Your task to perform on an android device: Go to Maps Image 0: 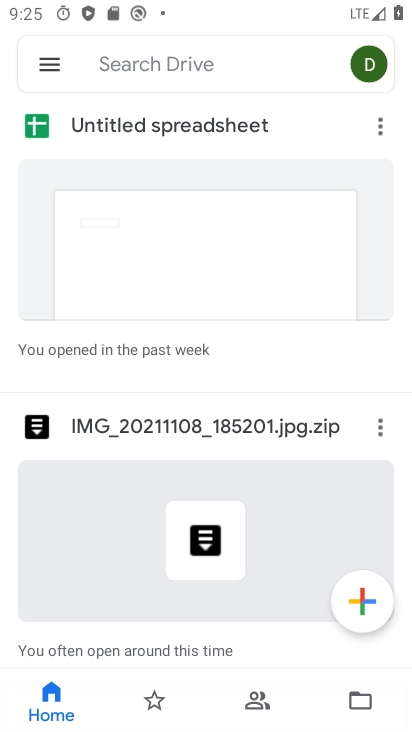
Step 0: press home button
Your task to perform on an android device: Go to Maps Image 1: 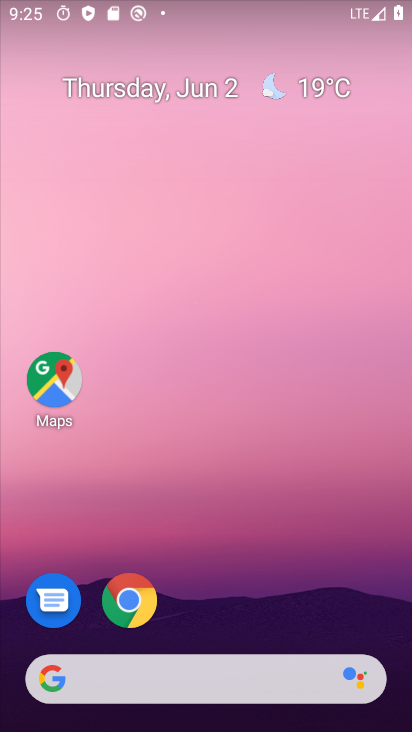
Step 1: click (231, 622)
Your task to perform on an android device: Go to Maps Image 2: 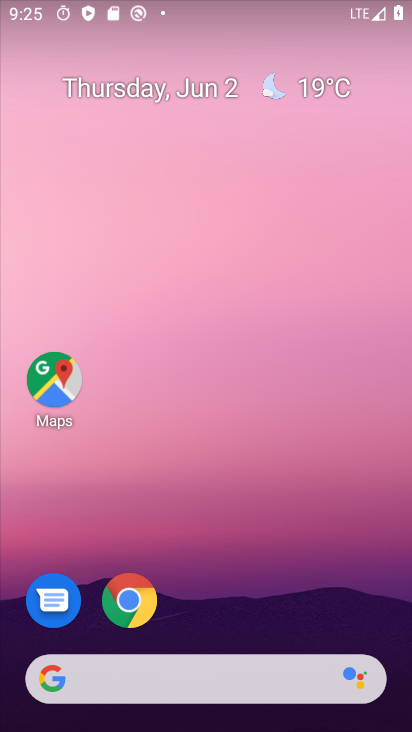
Step 2: click (58, 361)
Your task to perform on an android device: Go to Maps Image 3: 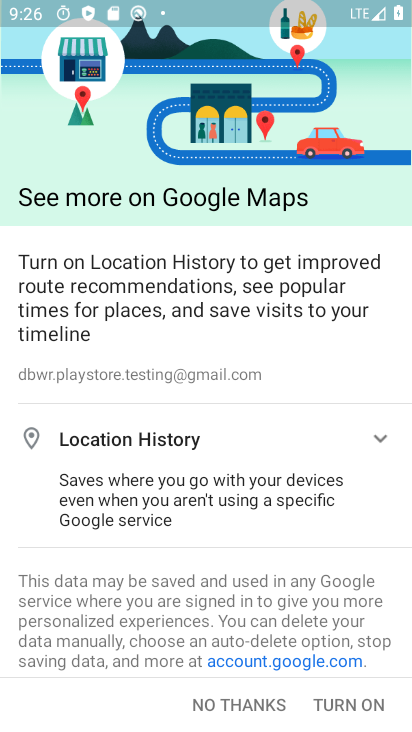
Step 3: click (359, 703)
Your task to perform on an android device: Go to Maps Image 4: 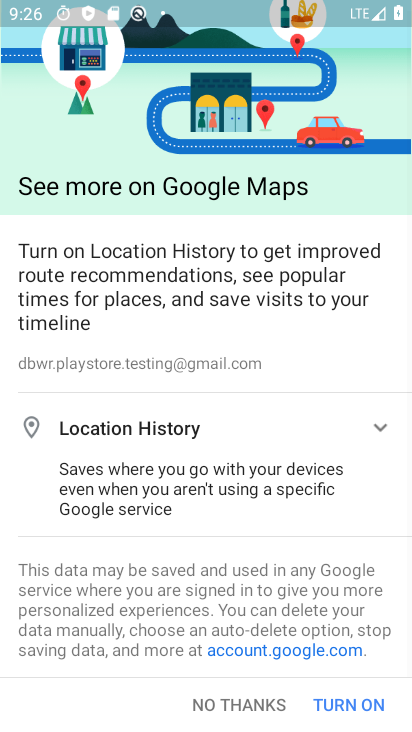
Step 4: click (360, 704)
Your task to perform on an android device: Go to Maps Image 5: 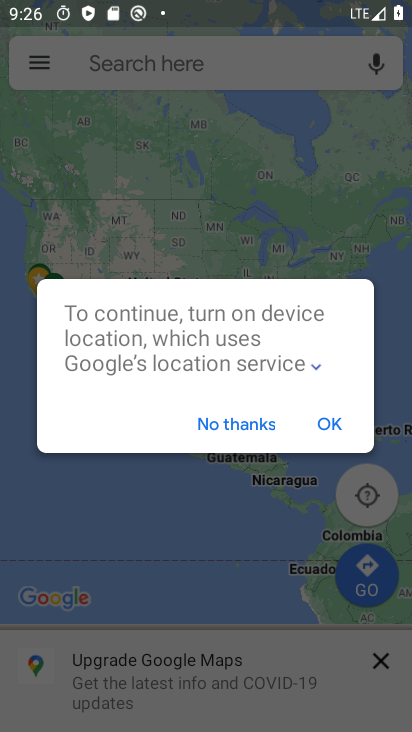
Step 5: task complete